Your task to perform on an android device: turn off data saver in the chrome app Image 0: 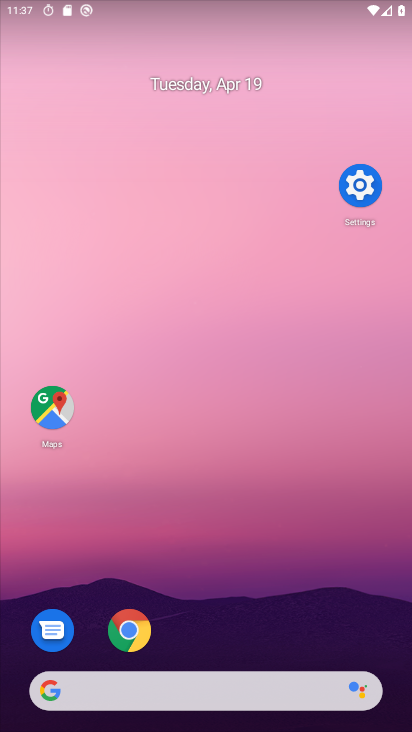
Step 0: drag from (316, 363) to (317, 102)
Your task to perform on an android device: turn off data saver in the chrome app Image 1: 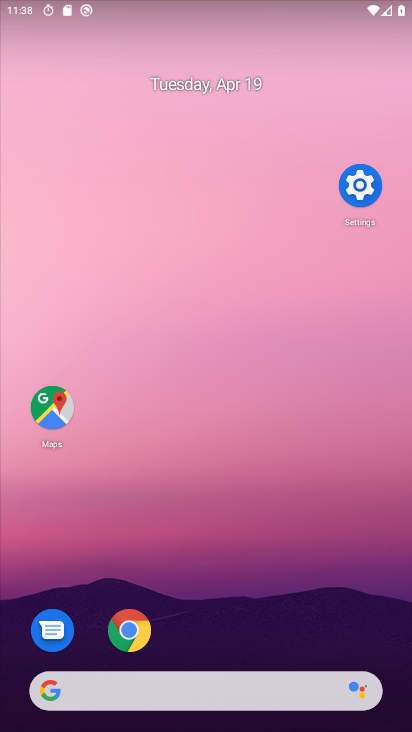
Step 1: drag from (268, 331) to (254, 3)
Your task to perform on an android device: turn off data saver in the chrome app Image 2: 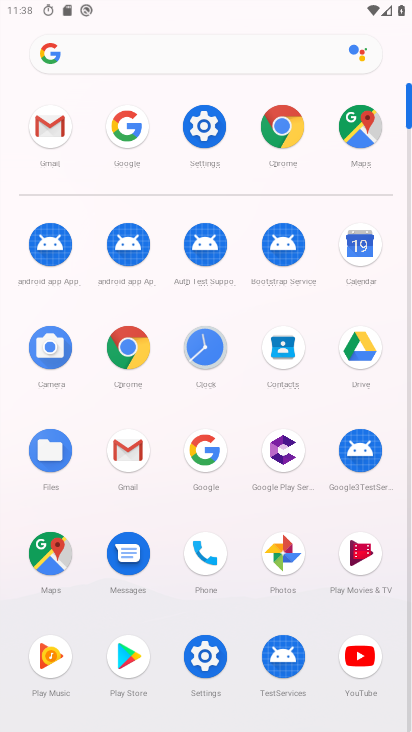
Step 2: click (296, 127)
Your task to perform on an android device: turn off data saver in the chrome app Image 3: 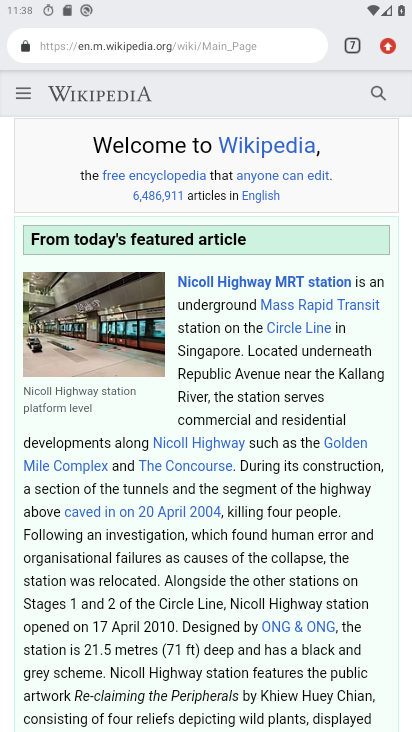
Step 3: click (390, 43)
Your task to perform on an android device: turn off data saver in the chrome app Image 4: 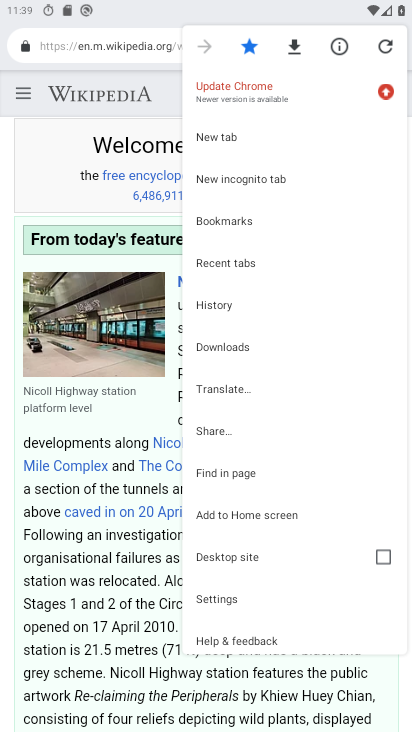
Step 4: click (240, 599)
Your task to perform on an android device: turn off data saver in the chrome app Image 5: 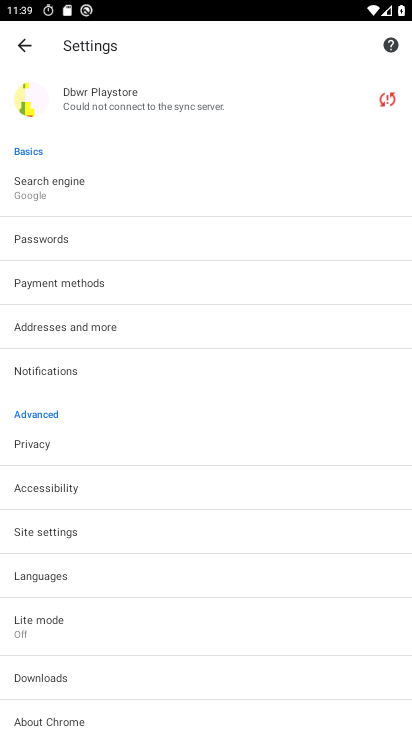
Step 5: click (240, 599)
Your task to perform on an android device: turn off data saver in the chrome app Image 6: 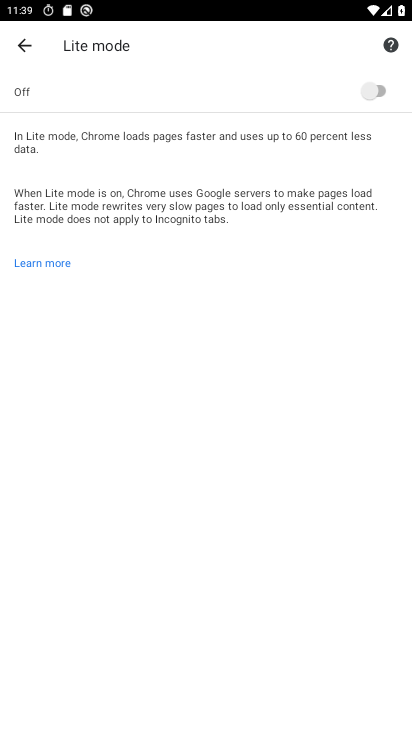
Step 6: task complete